Your task to perform on an android device: all mails in gmail Image 0: 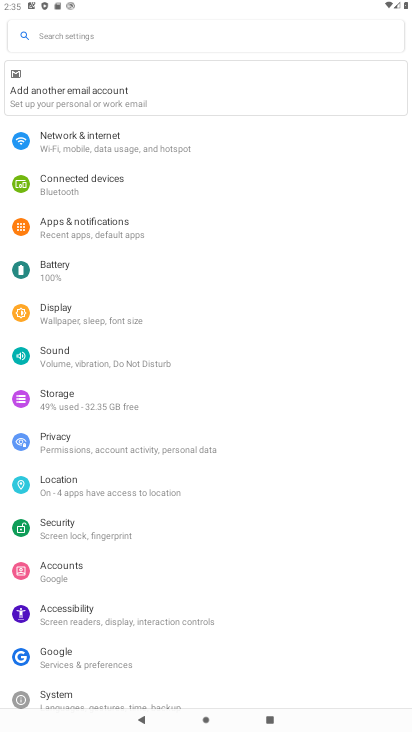
Step 0: press home button
Your task to perform on an android device: all mails in gmail Image 1: 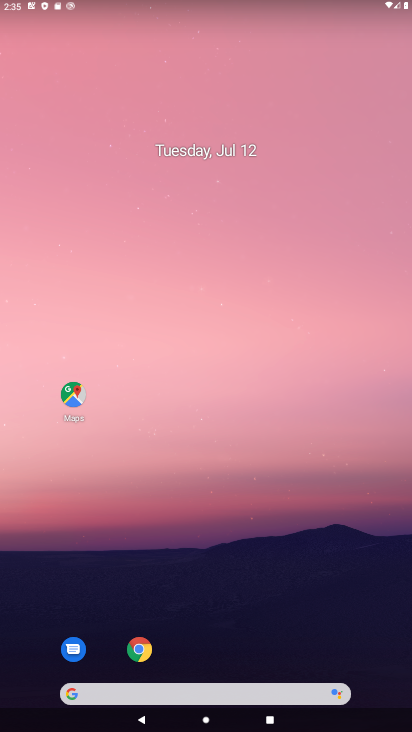
Step 1: drag from (240, 648) to (241, 304)
Your task to perform on an android device: all mails in gmail Image 2: 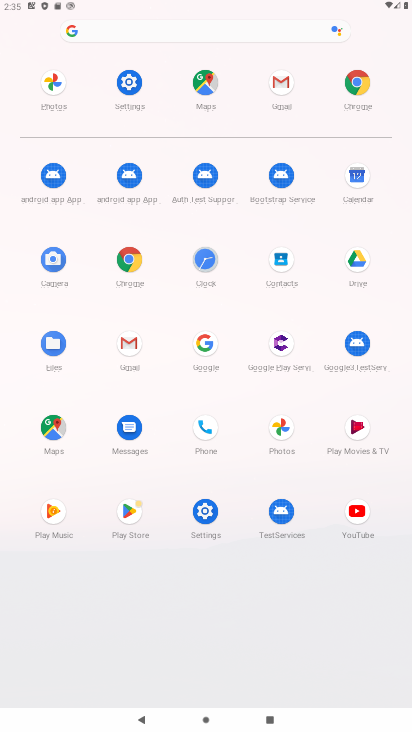
Step 2: click (278, 87)
Your task to perform on an android device: all mails in gmail Image 3: 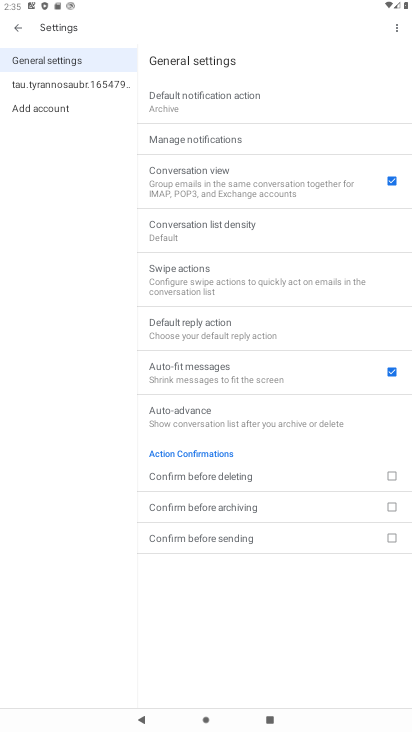
Step 3: click (24, 27)
Your task to perform on an android device: all mails in gmail Image 4: 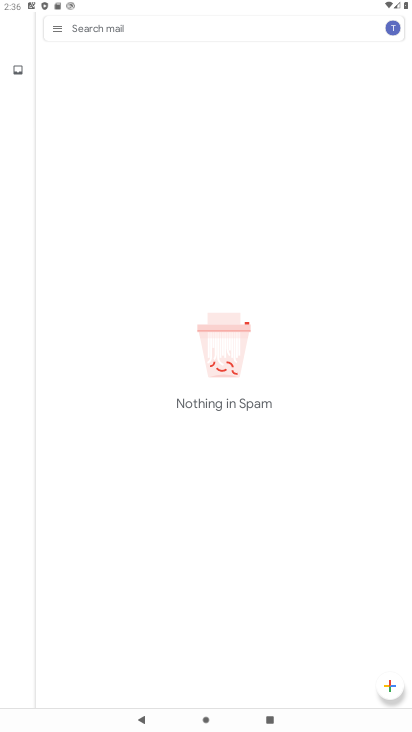
Step 4: click (55, 17)
Your task to perform on an android device: all mails in gmail Image 5: 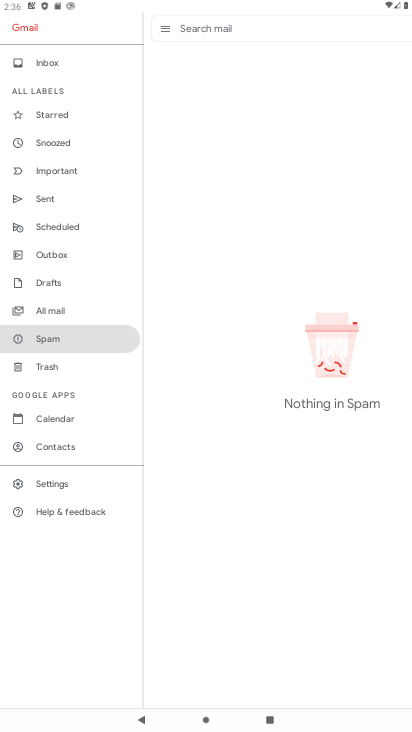
Step 5: click (55, 40)
Your task to perform on an android device: all mails in gmail Image 6: 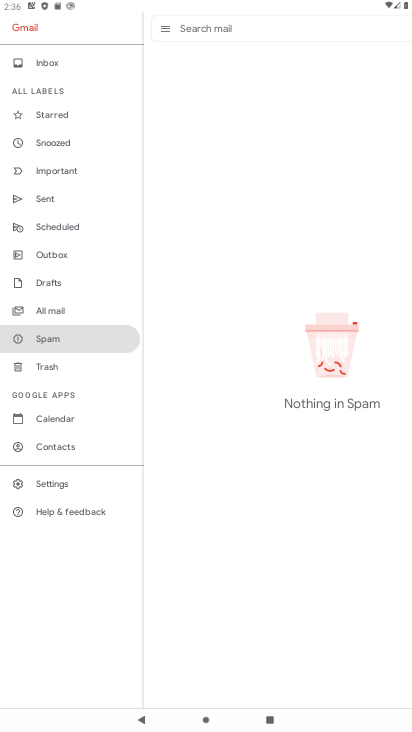
Step 6: click (65, 309)
Your task to perform on an android device: all mails in gmail Image 7: 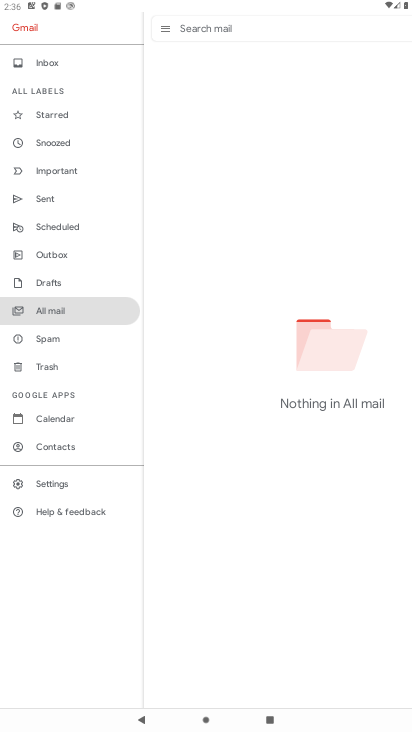
Step 7: task complete